Your task to perform on an android device: Open Wikipedia Image 0: 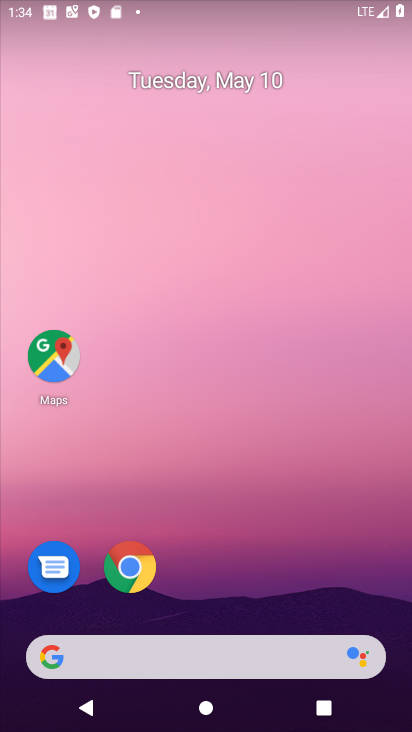
Step 0: drag from (377, 626) to (270, 105)
Your task to perform on an android device: Open Wikipedia Image 1: 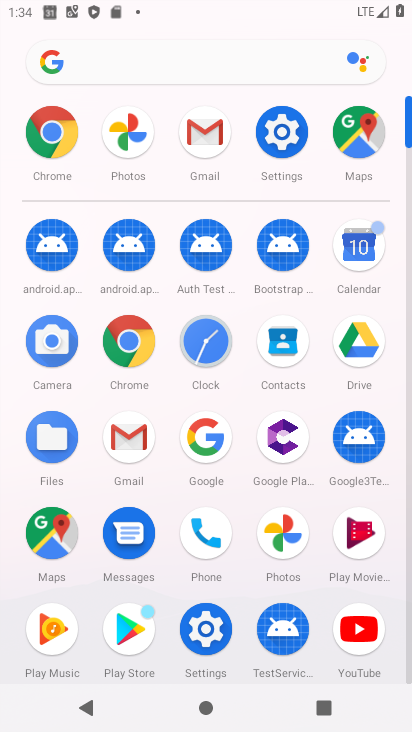
Step 1: click (61, 146)
Your task to perform on an android device: Open Wikipedia Image 2: 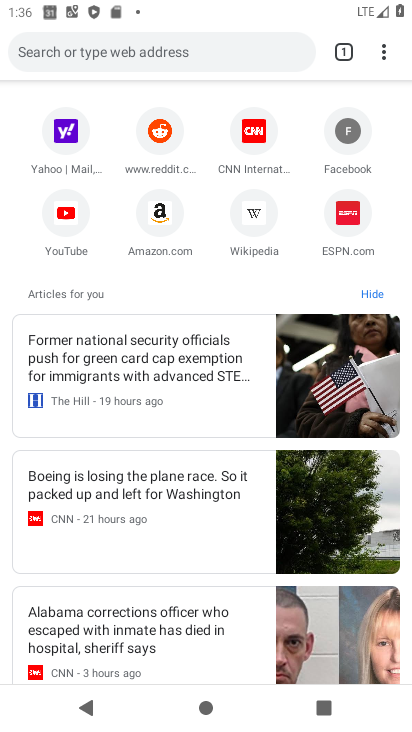
Step 2: click (265, 226)
Your task to perform on an android device: Open Wikipedia Image 3: 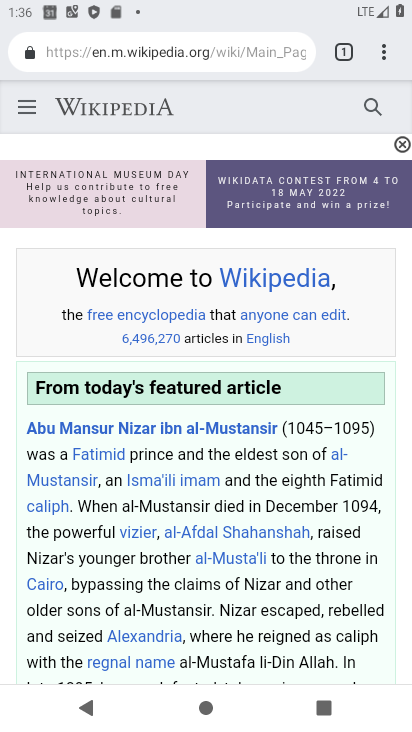
Step 3: task complete